Your task to perform on an android device: Open calendar and show me the second week of next month Image 0: 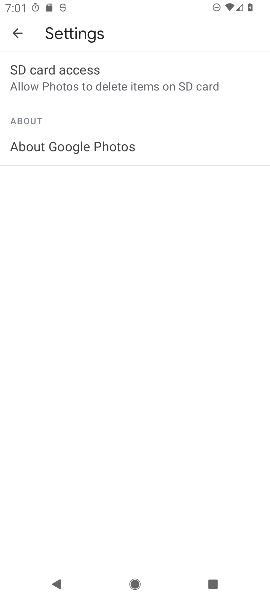
Step 0: press home button
Your task to perform on an android device: Open calendar and show me the second week of next month Image 1: 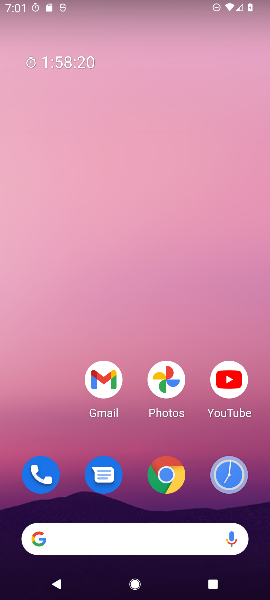
Step 1: drag from (58, 401) to (51, 114)
Your task to perform on an android device: Open calendar and show me the second week of next month Image 2: 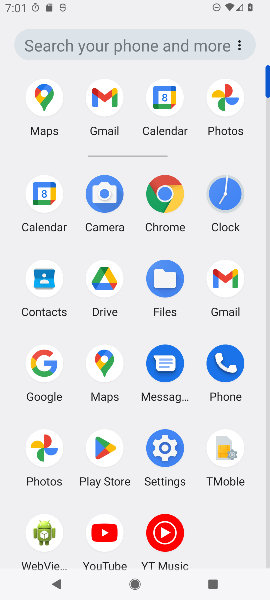
Step 2: click (225, 191)
Your task to perform on an android device: Open calendar and show me the second week of next month Image 3: 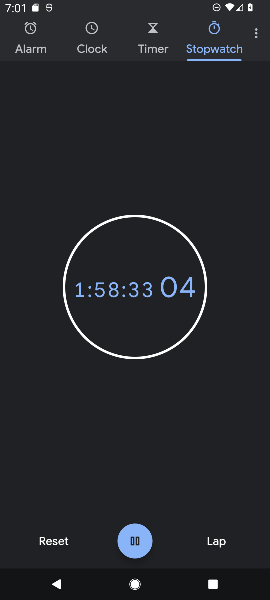
Step 3: click (256, 34)
Your task to perform on an android device: Open calendar and show me the second week of next month Image 4: 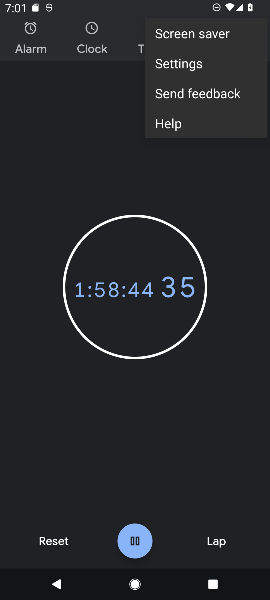
Step 4: press back button
Your task to perform on an android device: Open calendar and show me the second week of next month Image 5: 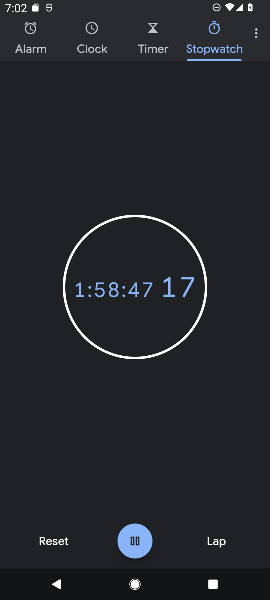
Step 5: press back button
Your task to perform on an android device: Open calendar and show me the second week of next month Image 6: 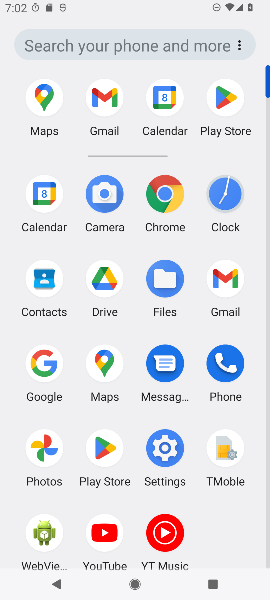
Step 6: click (44, 193)
Your task to perform on an android device: Open calendar and show me the second week of next month Image 7: 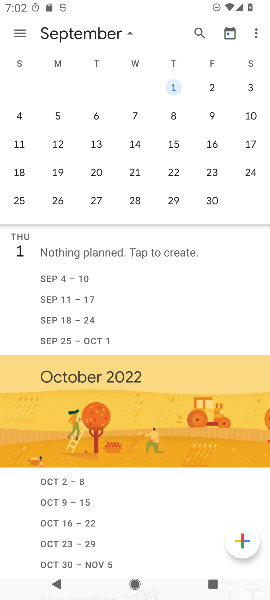
Step 7: click (58, 112)
Your task to perform on an android device: Open calendar and show me the second week of next month Image 8: 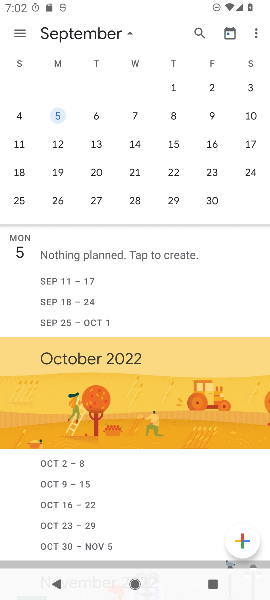
Step 8: task complete